Your task to perform on an android device: allow cookies in the chrome app Image 0: 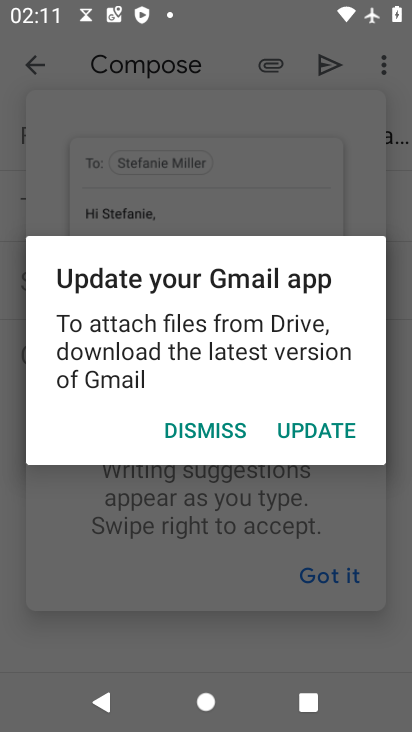
Step 0: press home button
Your task to perform on an android device: allow cookies in the chrome app Image 1: 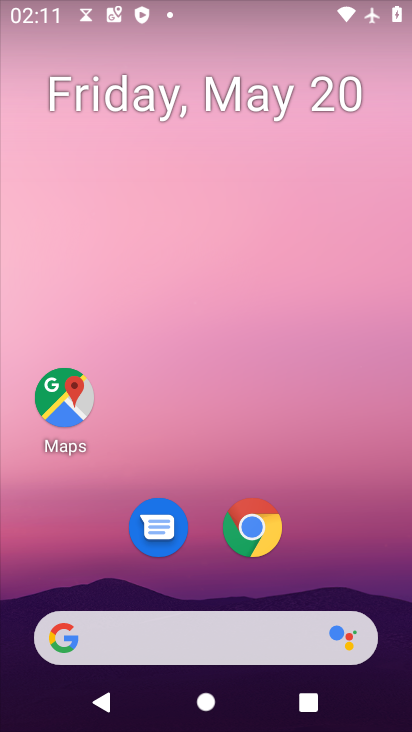
Step 1: click (250, 541)
Your task to perform on an android device: allow cookies in the chrome app Image 2: 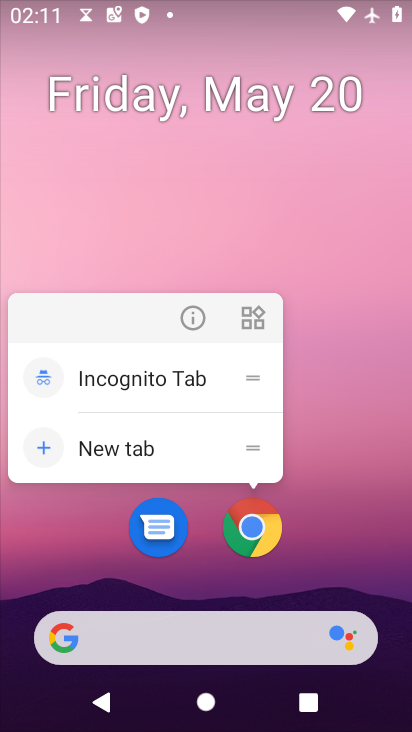
Step 2: click (254, 537)
Your task to perform on an android device: allow cookies in the chrome app Image 3: 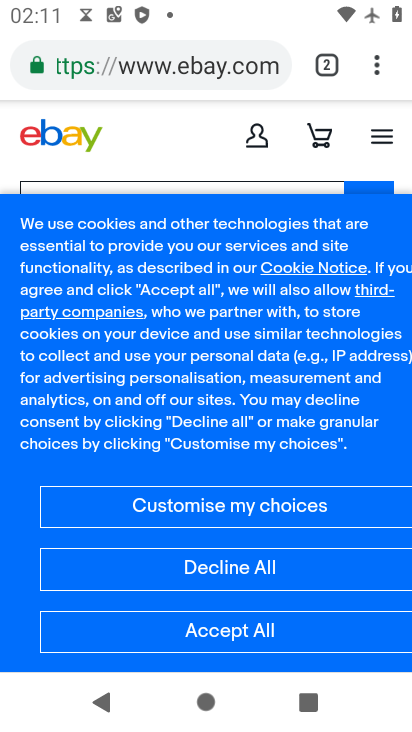
Step 3: drag from (375, 72) to (251, 582)
Your task to perform on an android device: allow cookies in the chrome app Image 4: 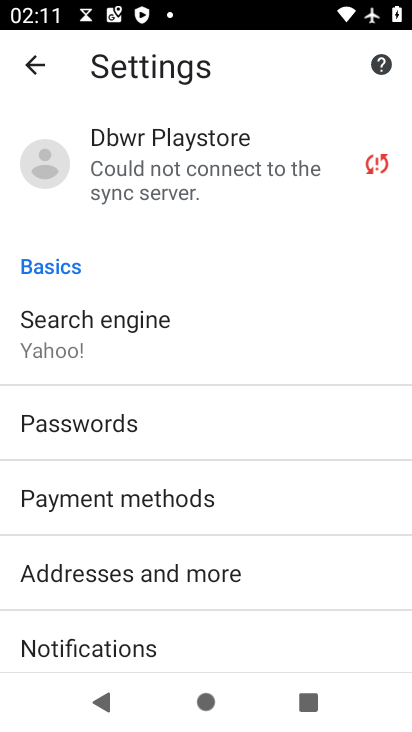
Step 4: drag from (249, 606) to (294, 352)
Your task to perform on an android device: allow cookies in the chrome app Image 5: 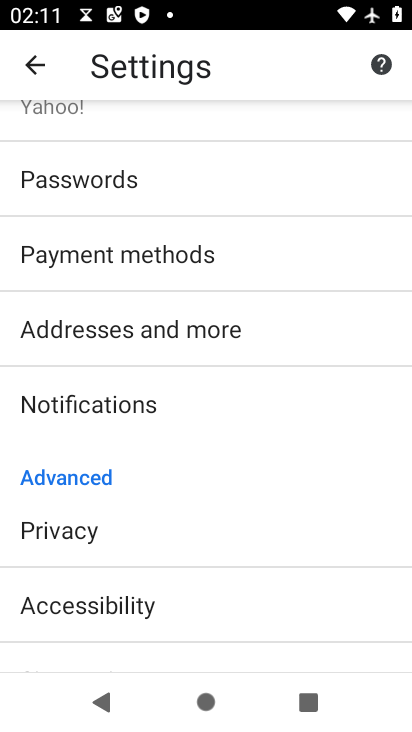
Step 5: drag from (220, 574) to (267, 263)
Your task to perform on an android device: allow cookies in the chrome app Image 6: 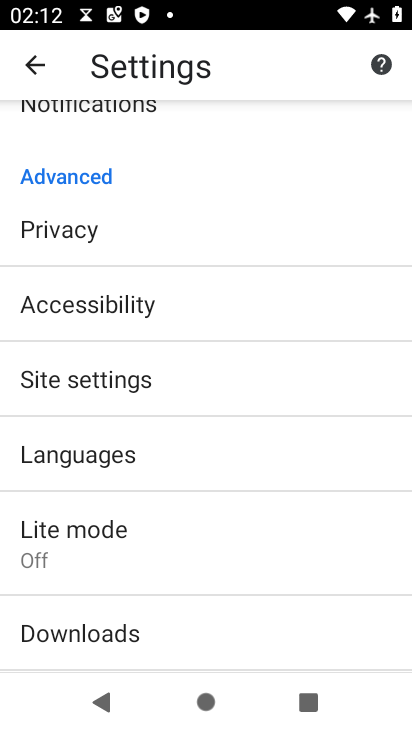
Step 6: click (123, 380)
Your task to perform on an android device: allow cookies in the chrome app Image 7: 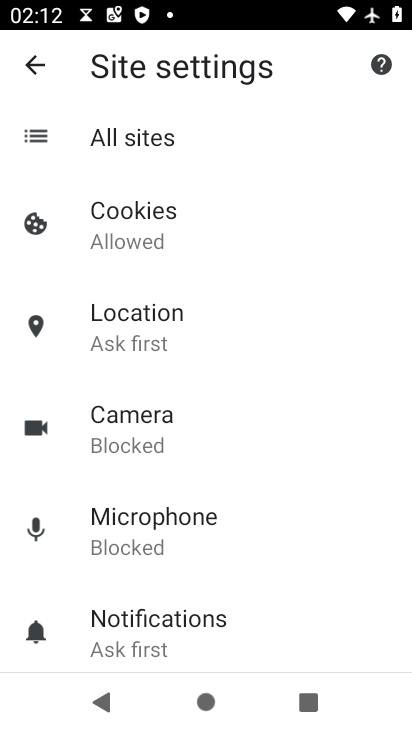
Step 7: click (130, 233)
Your task to perform on an android device: allow cookies in the chrome app Image 8: 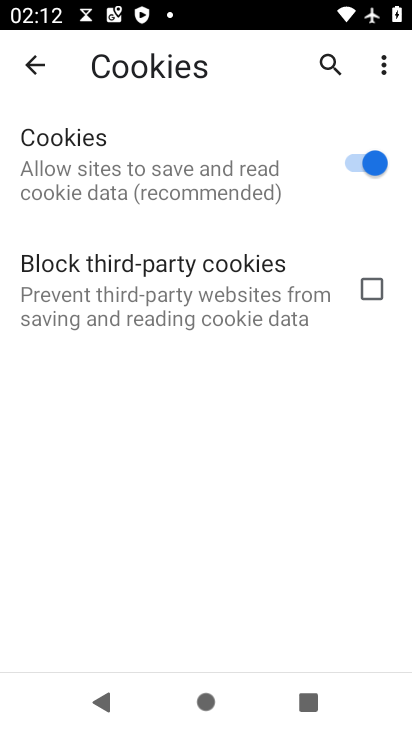
Step 8: task complete